Your task to perform on an android device: Go to Amazon Image 0: 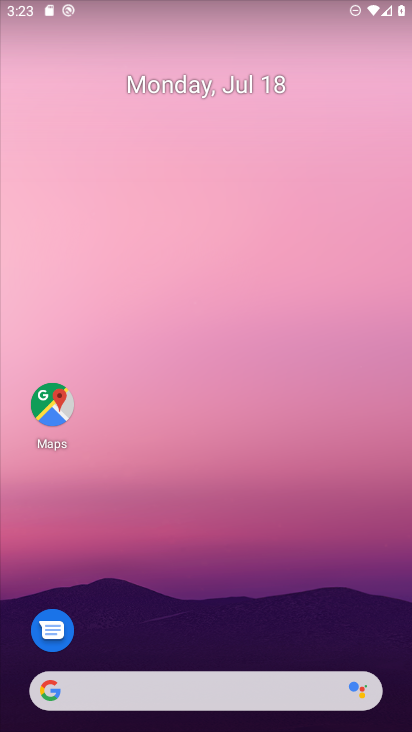
Step 0: drag from (203, 691) to (184, 57)
Your task to perform on an android device: Go to Amazon Image 1: 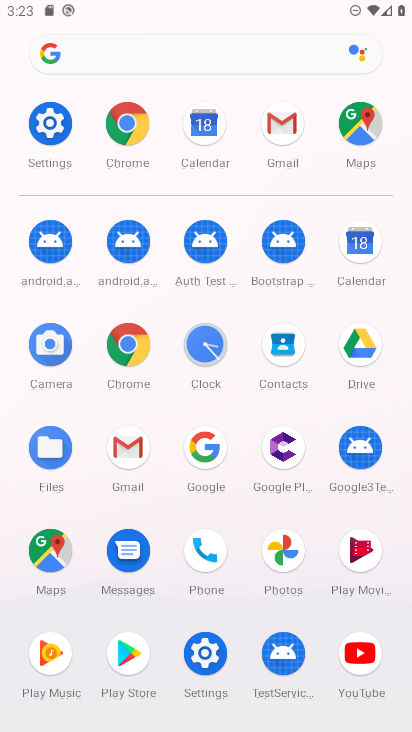
Step 1: click (123, 352)
Your task to perform on an android device: Go to Amazon Image 2: 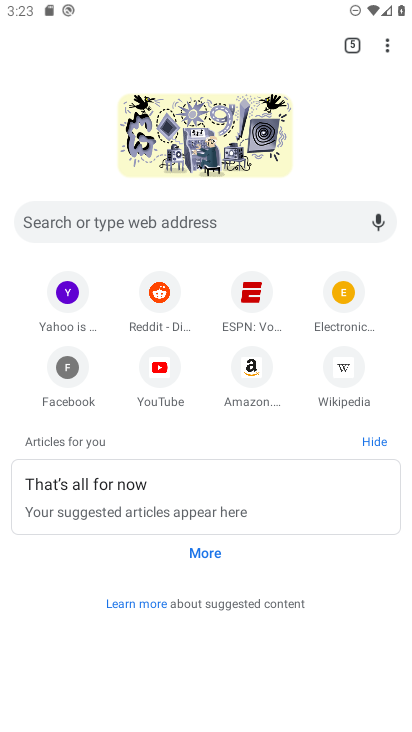
Step 2: click (158, 224)
Your task to perform on an android device: Go to Amazon Image 3: 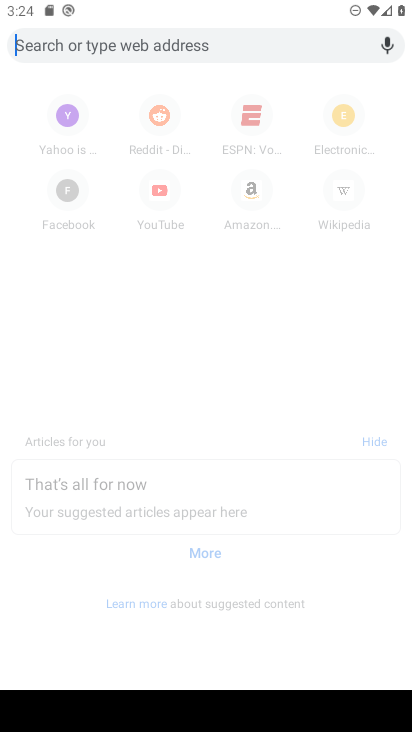
Step 3: type "amazon"
Your task to perform on an android device: Go to Amazon Image 4: 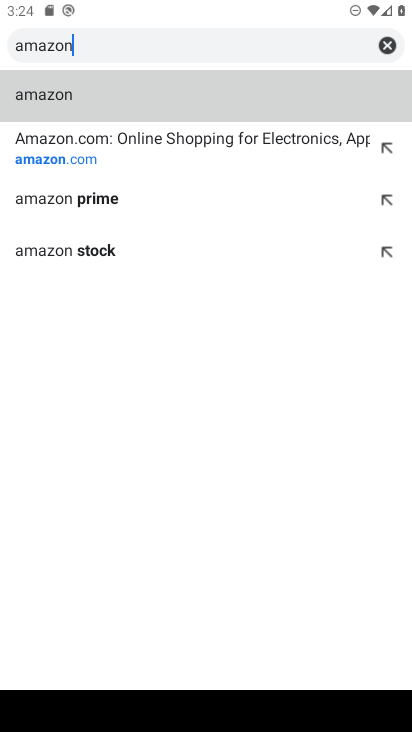
Step 4: click (118, 137)
Your task to perform on an android device: Go to Amazon Image 5: 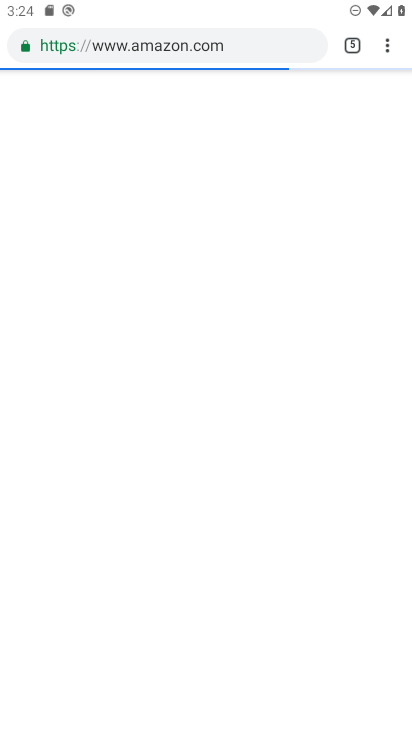
Step 5: click (118, 140)
Your task to perform on an android device: Go to Amazon Image 6: 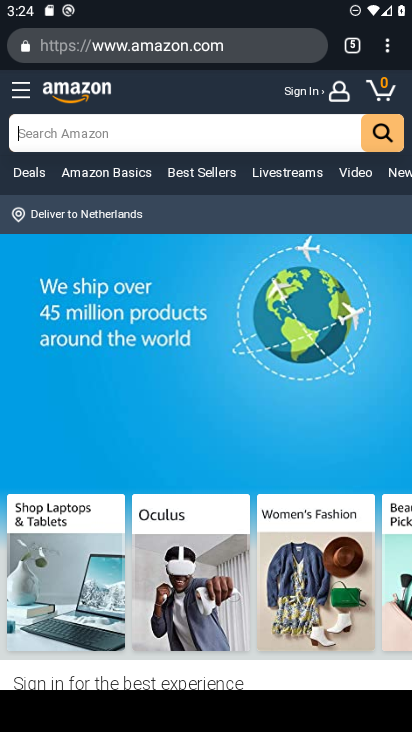
Step 6: task complete